Your task to perform on an android device: find snoozed emails in the gmail app Image 0: 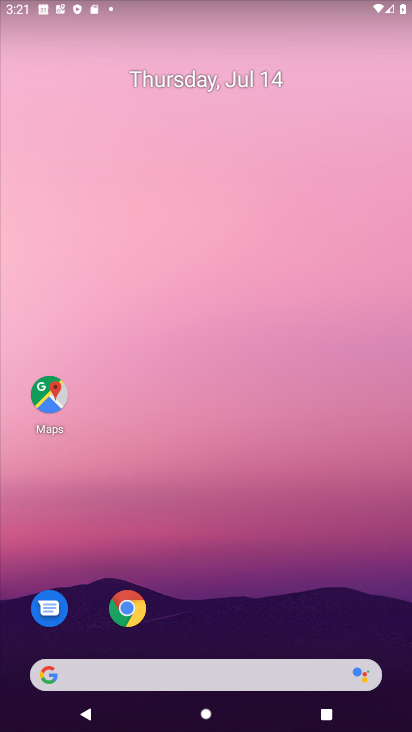
Step 0: drag from (250, 616) to (276, 2)
Your task to perform on an android device: find snoozed emails in the gmail app Image 1: 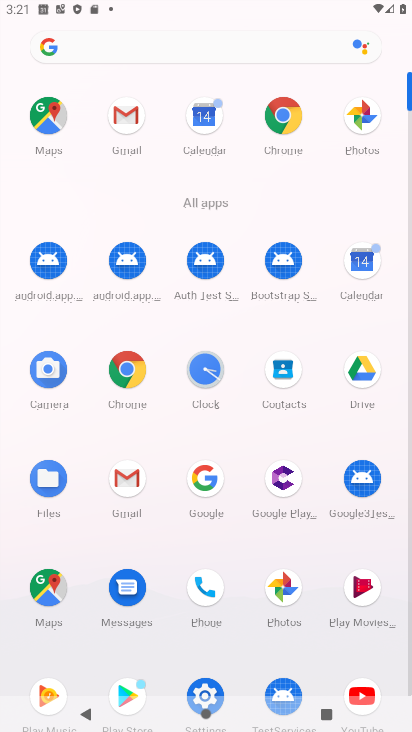
Step 1: click (122, 124)
Your task to perform on an android device: find snoozed emails in the gmail app Image 2: 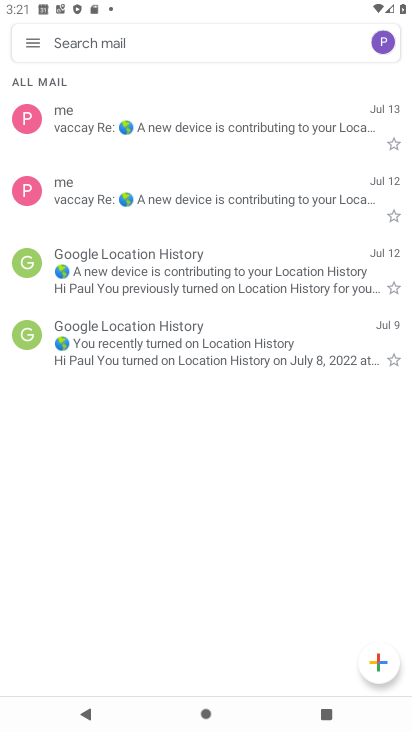
Step 2: click (29, 37)
Your task to perform on an android device: find snoozed emails in the gmail app Image 3: 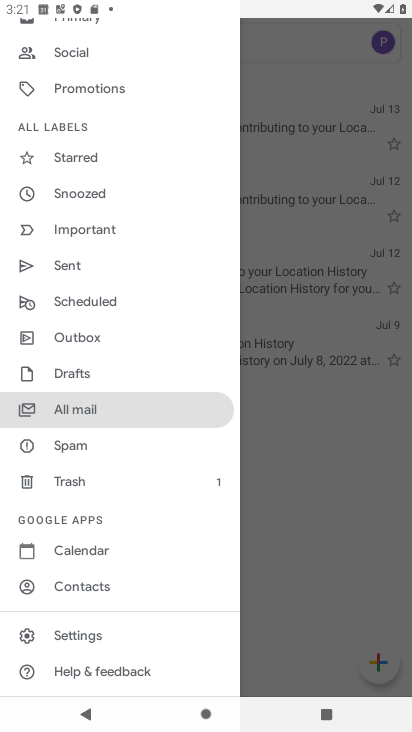
Step 3: click (79, 191)
Your task to perform on an android device: find snoozed emails in the gmail app Image 4: 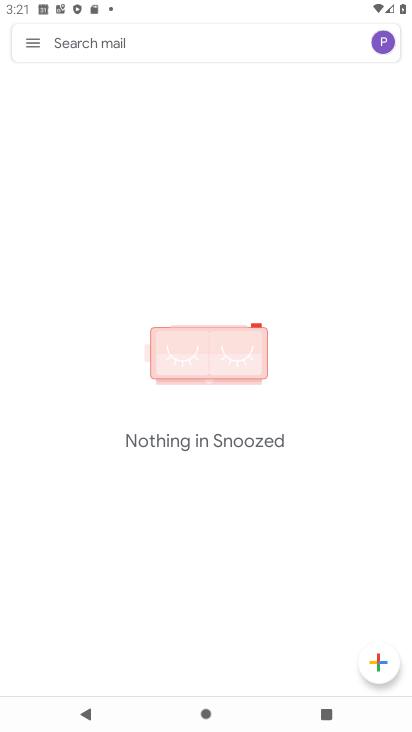
Step 4: task complete